Your task to perform on an android device: snooze an email in the gmail app Image 0: 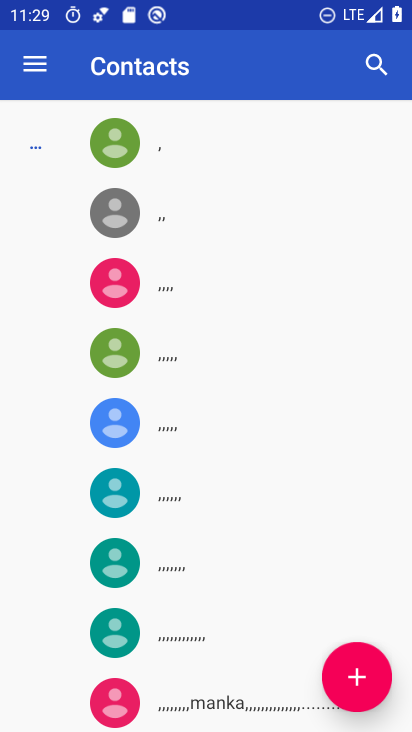
Step 0: drag from (169, 607) to (217, 114)
Your task to perform on an android device: snooze an email in the gmail app Image 1: 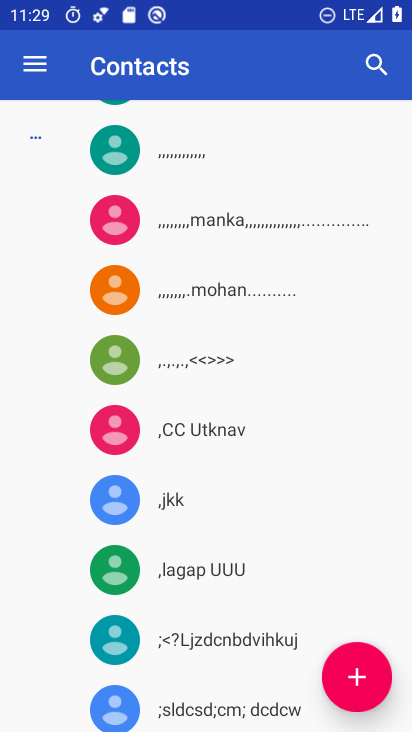
Step 1: drag from (218, 576) to (259, 207)
Your task to perform on an android device: snooze an email in the gmail app Image 2: 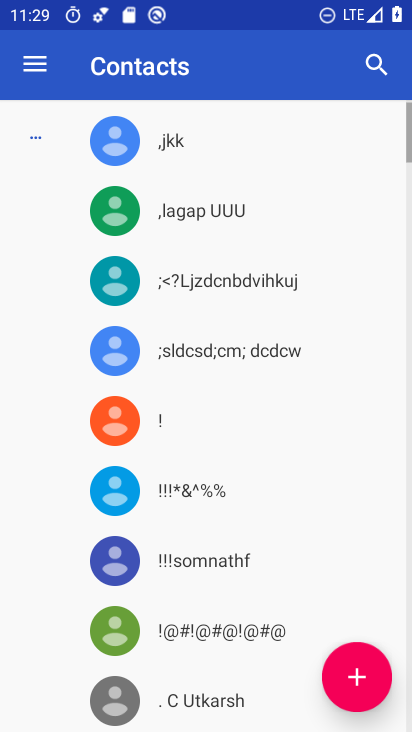
Step 2: drag from (193, 622) to (270, 298)
Your task to perform on an android device: snooze an email in the gmail app Image 3: 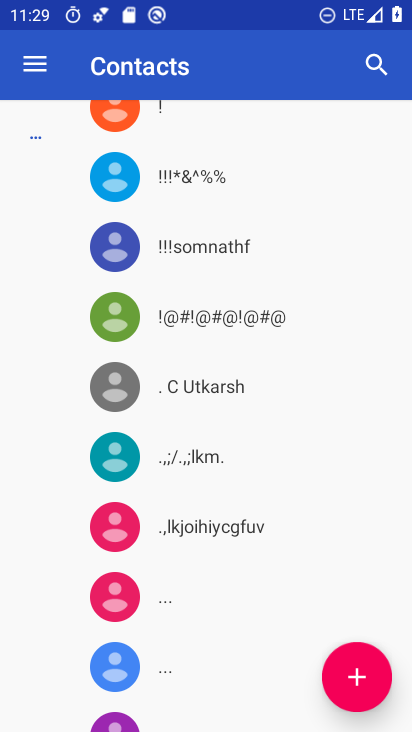
Step 3: press home button
Your task to perform on an android device: snooze an email in the gmail app Image 4: 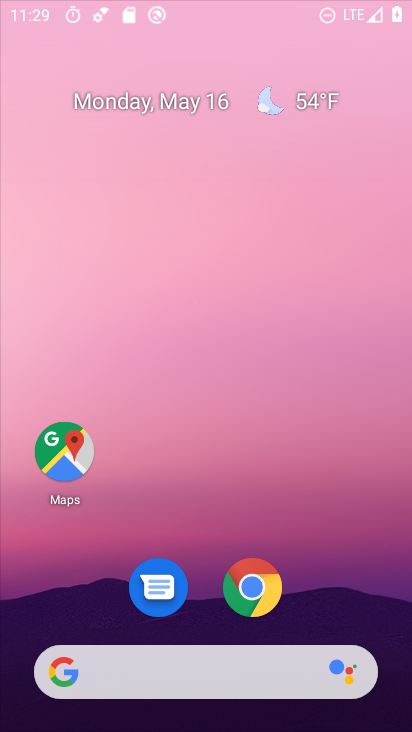
Step 4: drag from (170, 626) to (219, 268)
Your task to perform on an android device: snooze an email in the gmail app Image 5: 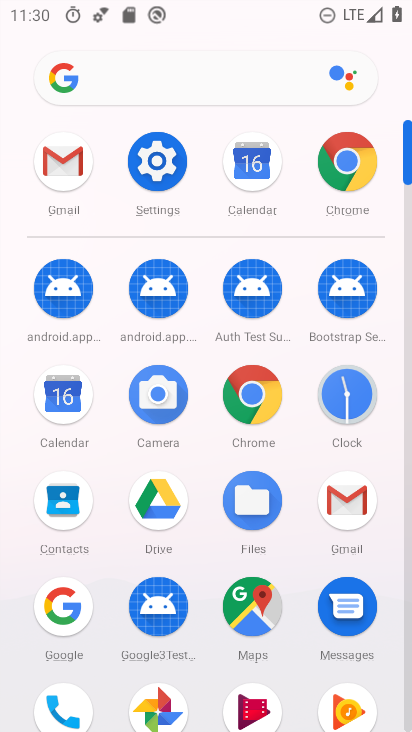
Step 5: click (343, 507)
Your task to perform on an android device: snooze an email in the gmail app Image 6: 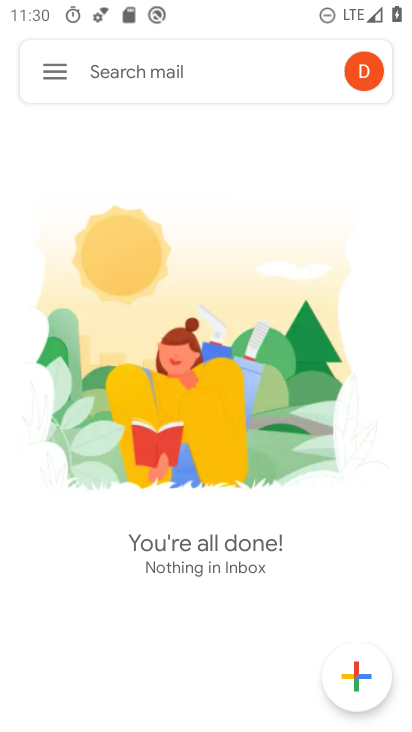
Step 6: click (69, 65)
Your task to perform on an android device: snooze an email in the gmail app Image 7: 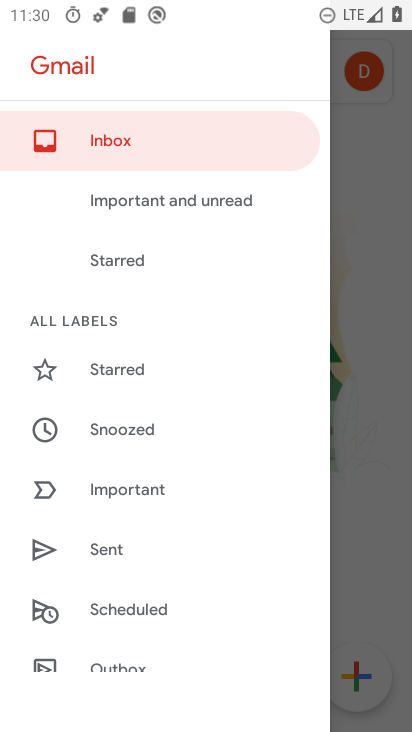
Step 7: click (163, 424)
Your task to perform on an android device: snooze an email in the gmail app Image 8: 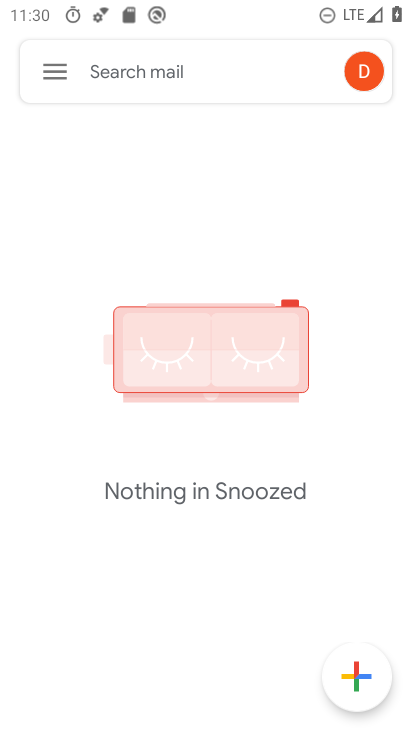
Step 8: task complete